Your task to perform on an android device: move an email to a new category in the gmail app Image 0: 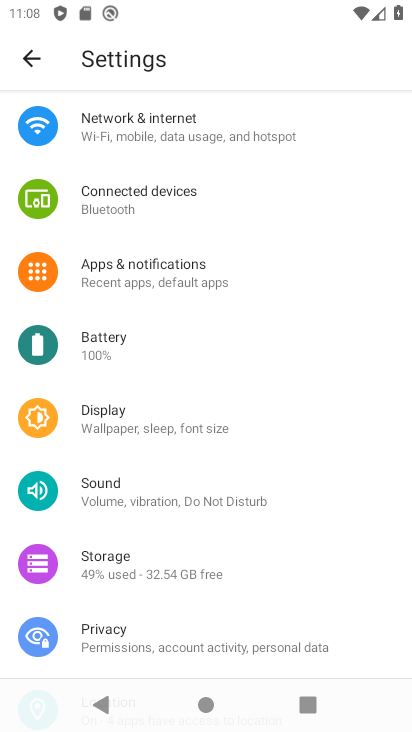
Step 0: press home button
Your task to perform on an android device: move an email to a new category in the gmail app Image 1: 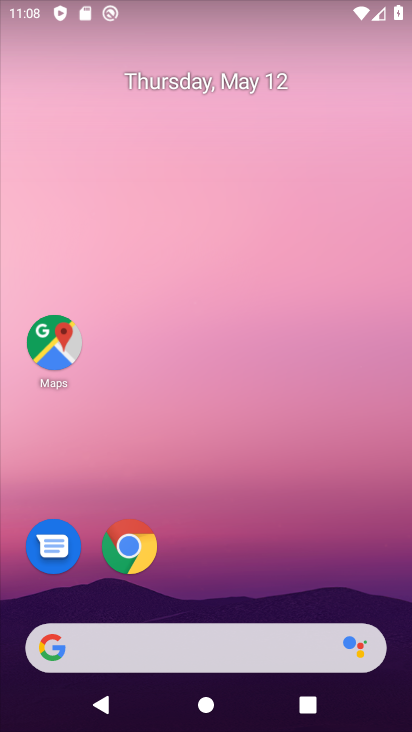
Step 1: drag from (229, 728) to (206, 107)
Your task to perform on an android device: move an email to a new category in the gmail app Image 2: 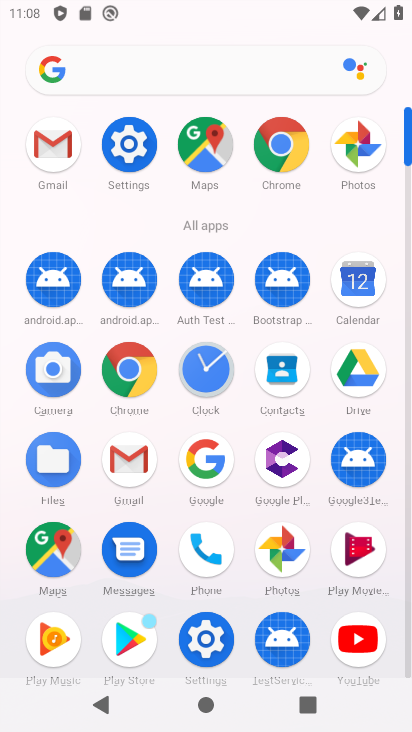
Step 2: click (122, 456)
Your task to perform on an android device: move an email to a new category in the gmail app Image 3: 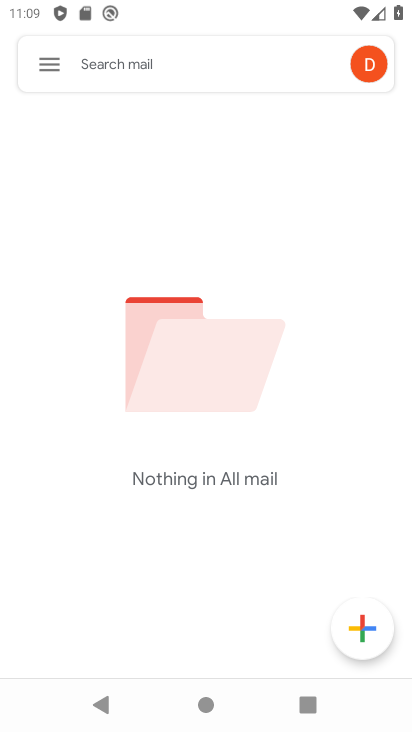
Step 3: task complete